Your task to perform on an android device: How much does a 2 bedroom apartment rent for in Houston? Image 0: 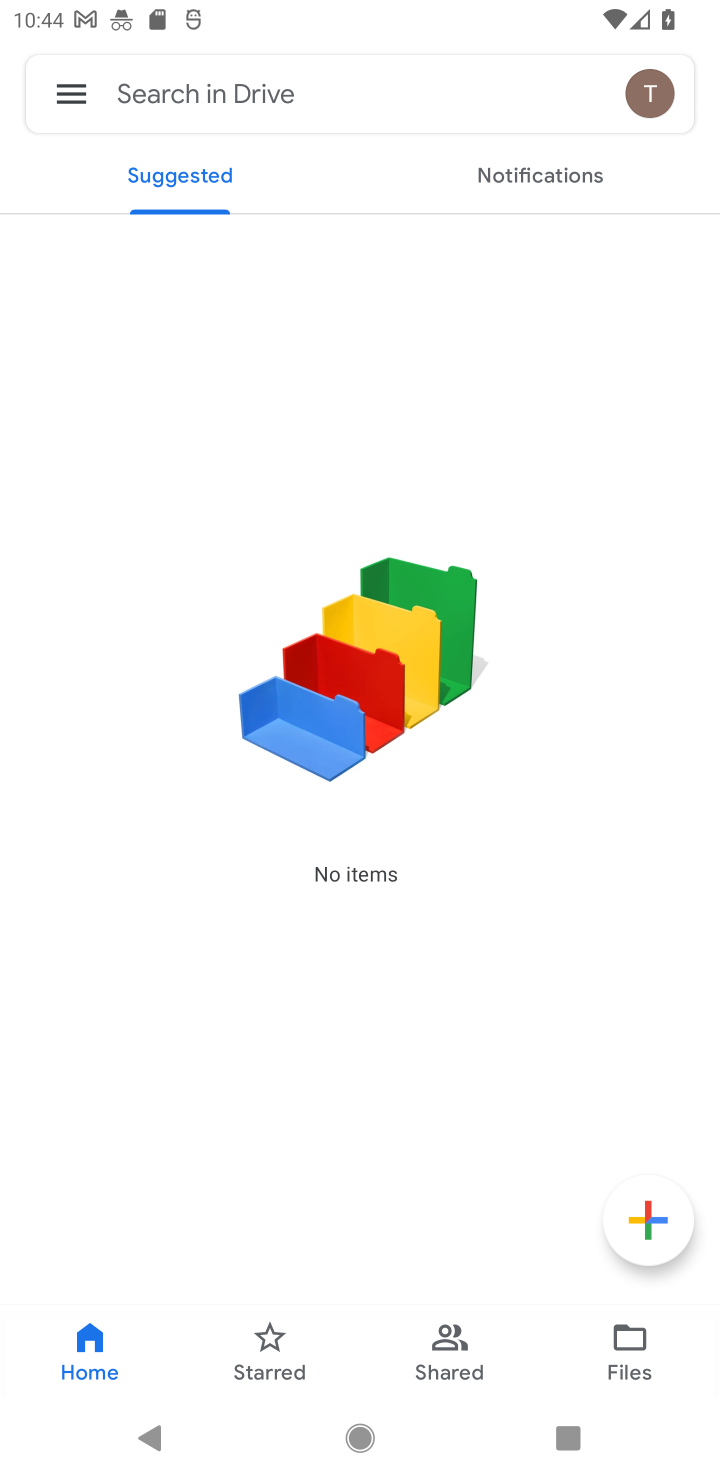
Step 0: press home button
Your task to perform on an android device: How much does a 2 bedroom apartment rent for in Houston? Image 1: 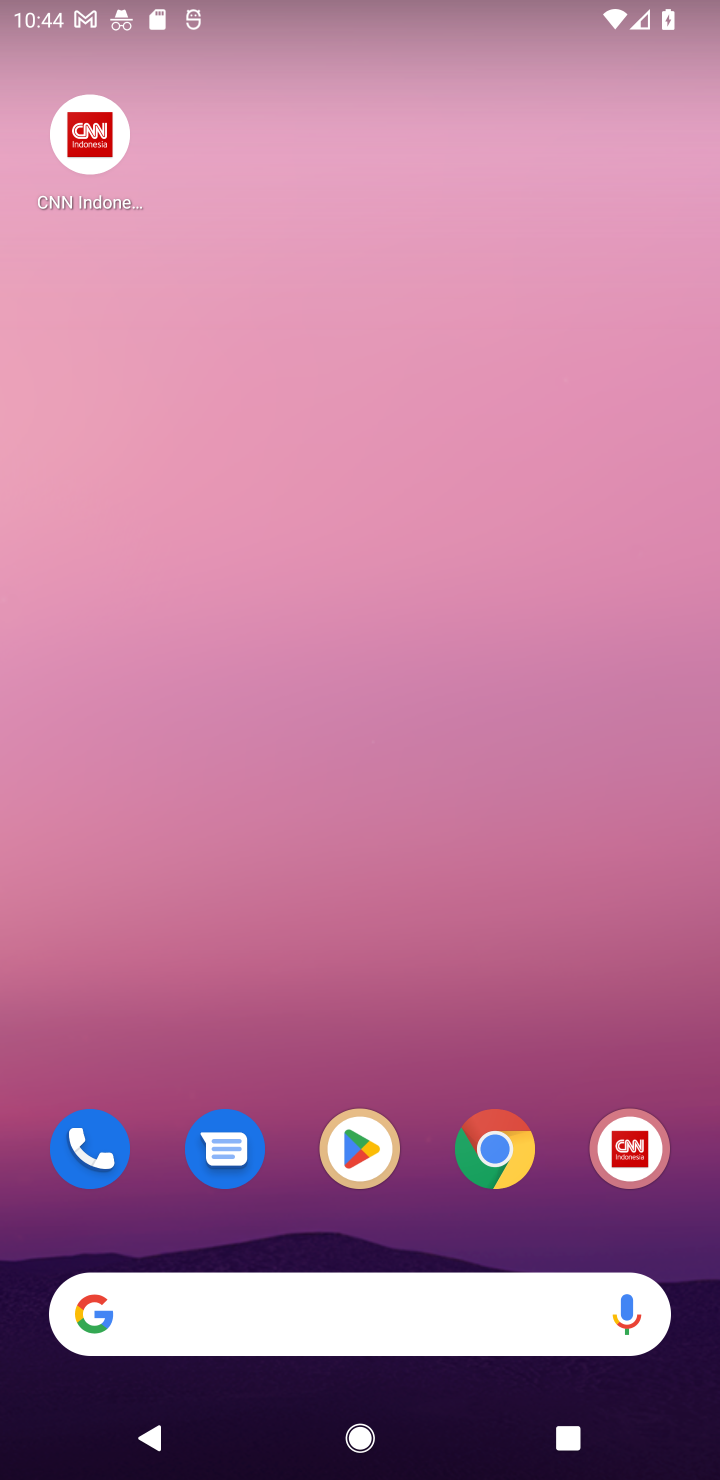
Step 1: click (203, 1289)
Your task to perform on an android device: How much does a 2 bedroom apartment rent for in Houston? Image 2: 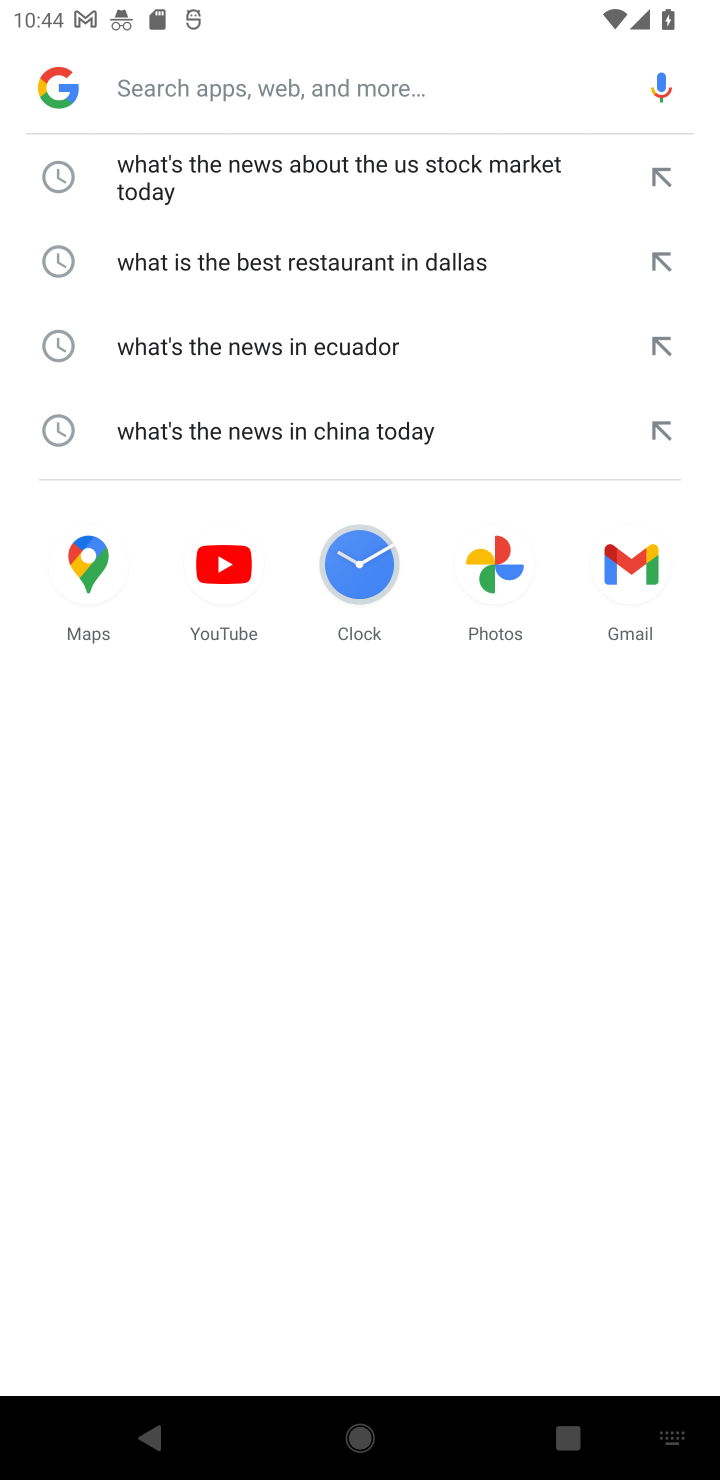
Step 2: type "How much does a 2 bedroom apartment rent for in Houston?"
Your task to perform on an android device: How much does a 2 bedroom apartment rent for in Houston? Image 3: 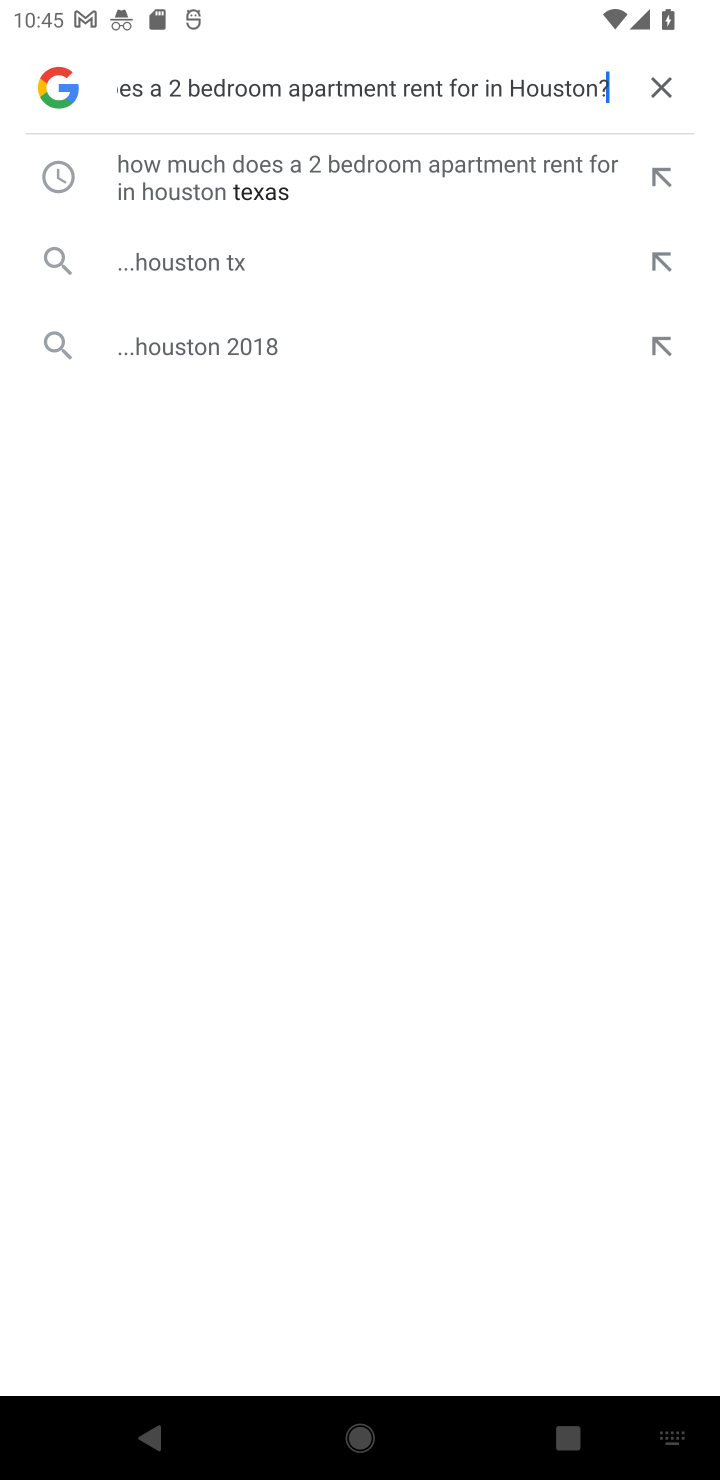
Step 3: task complete